Your task to perform on an android device: turn off data saver in the chrome app Image 0: 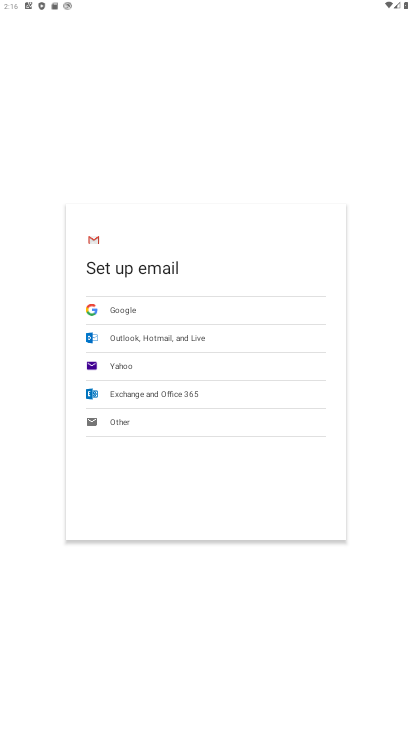
Step 0: press home button
Your task to perform on an android device: turn off data saver in the chrome app Image 1: 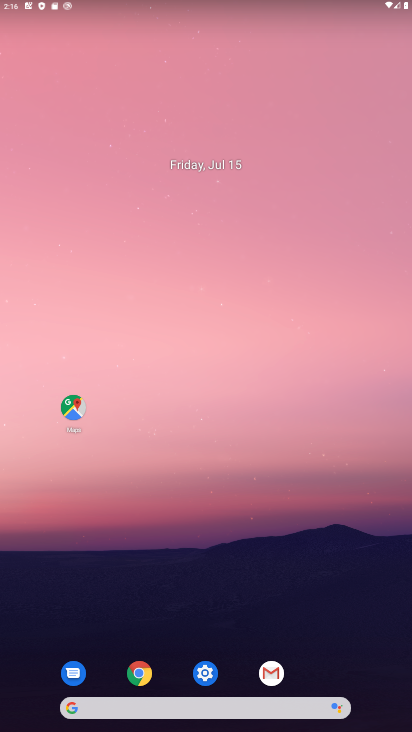
Step 1: click (141, 669)
Your task to perform on an android device: turn off data saver in the chrome app Image 2: 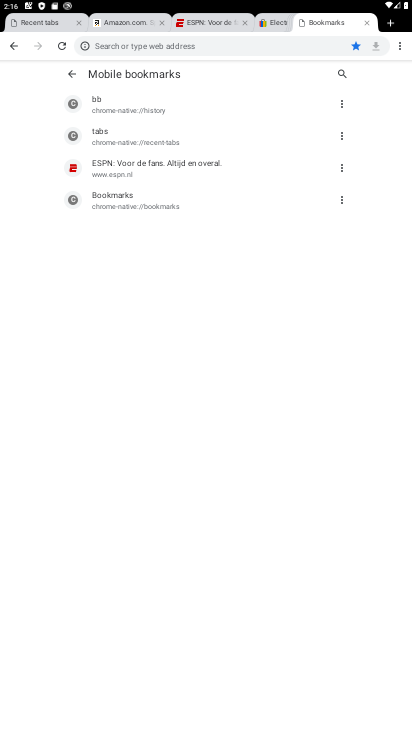
Step 2: click (398, 43)
Your task to perform on an android device: turn off data saver in the chrome app Image 3: 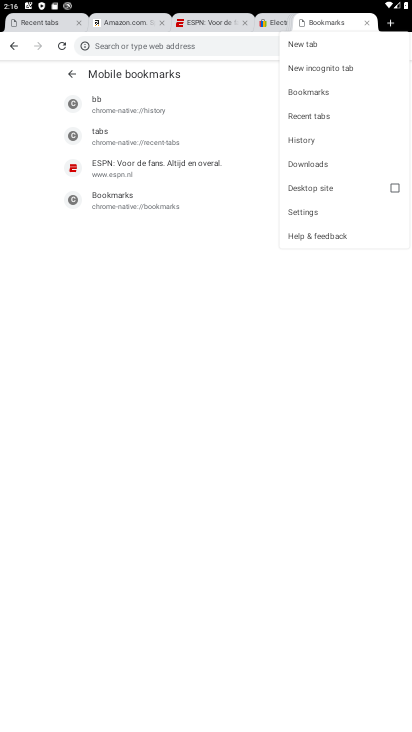
Step 3: click (307, 207)
Your task to perform on an android device: turn off data saver in the chrome app Image 4: 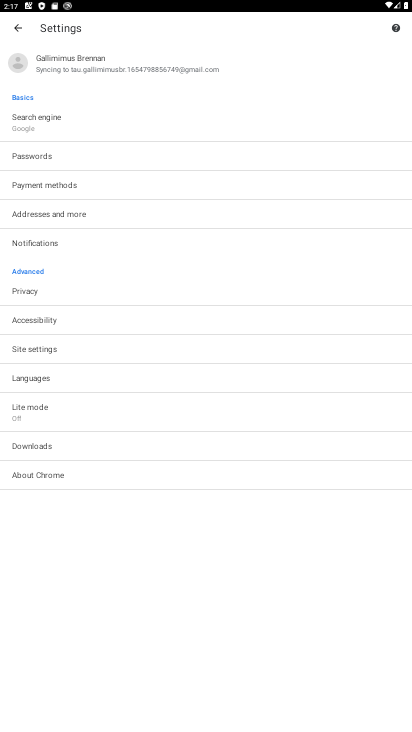
Step 4: click (49, 404)
Your task to perform on an android device: turn off data saver in the chrome app Image 5: 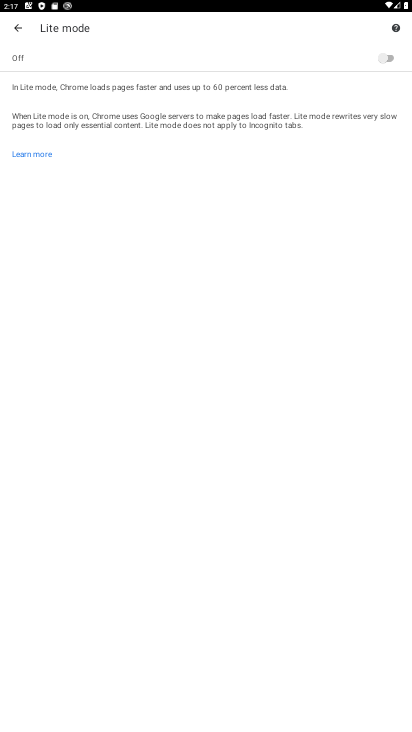
Step 5: click (376, 64)
Your task to perform on an android device: turn off data saver in the chrome app Image 6: 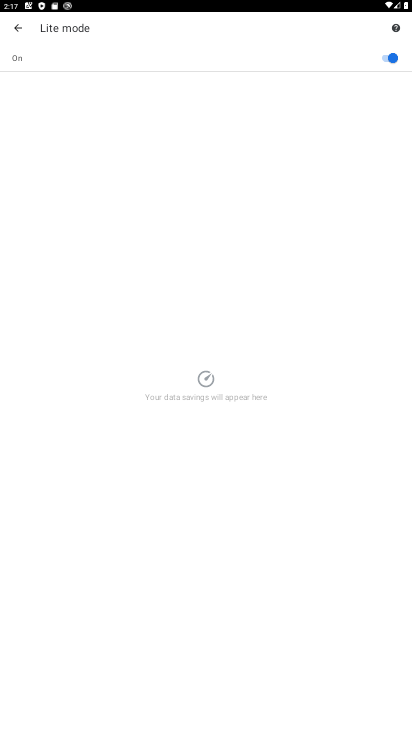
Step 6: click (376, 64)
Your task to perform on an android device: turn off data saver in the chrome app Image 7: 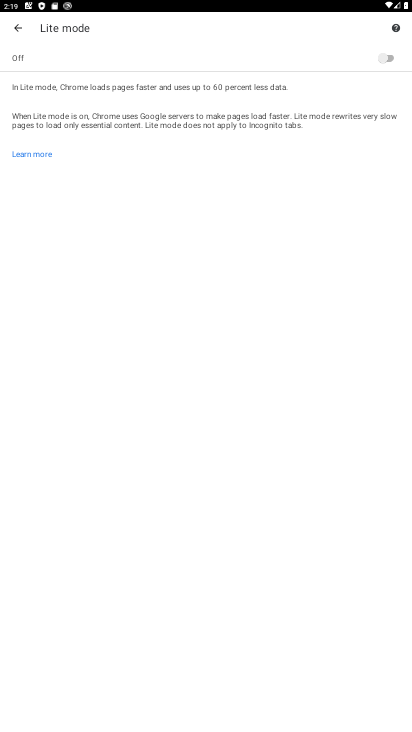
Step 7: task complete